Your task to perform on an android device: Open notification settings Image 0: 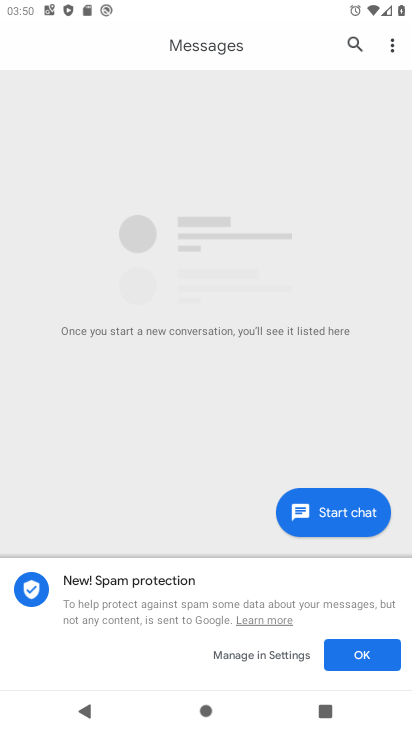
Step 0: press home button
Your task to perform on an android device: Open notification settings Image 1: 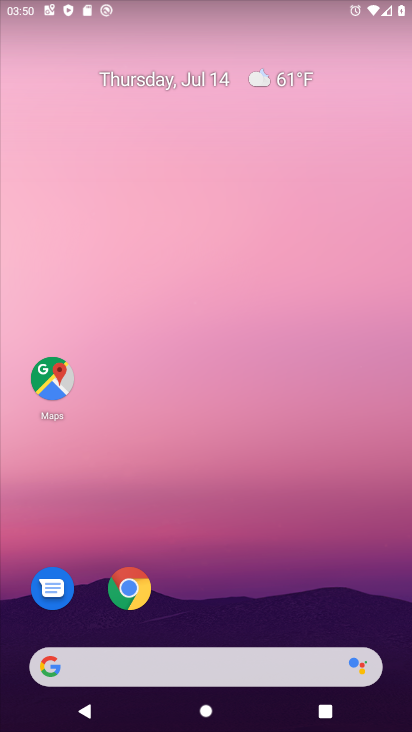
Step 1: drag from (224, 534) to (167, 77)
Your task to perform on an android device: Open notification settings Image 2: 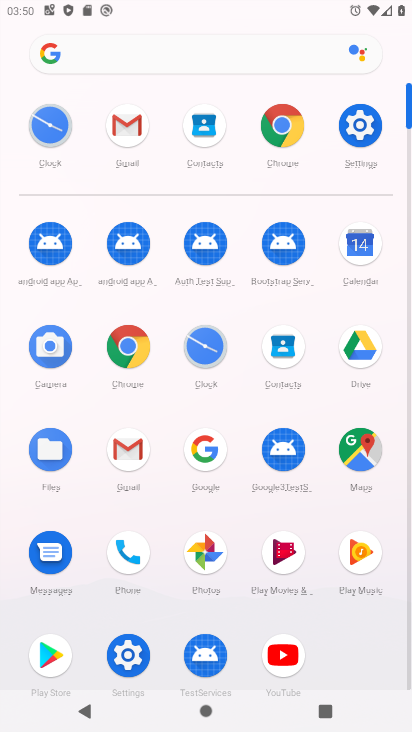
Step 2: click (360, 128)
Your task to perform on an android device: Open notification settings Image 3: 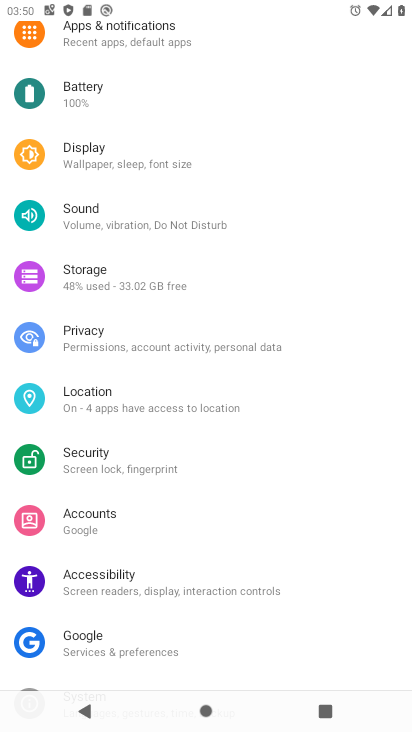
Step 3: click (110, 42)
Your task to perform on an android device: Open notification settings Image 4: 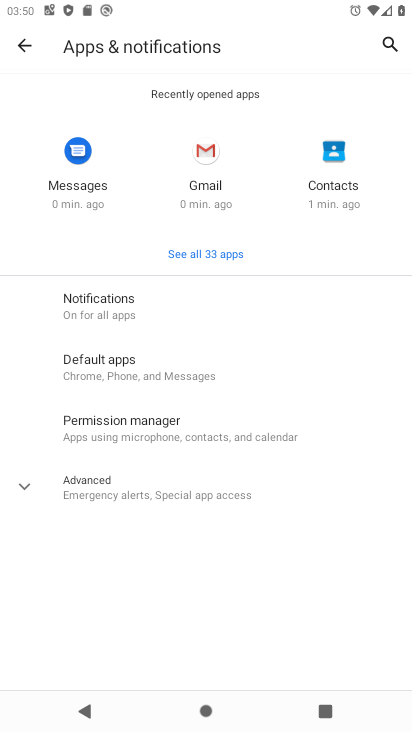
Step 4: click (64, 306)
Your task to perform on an android device: Open notification settings Image 5: 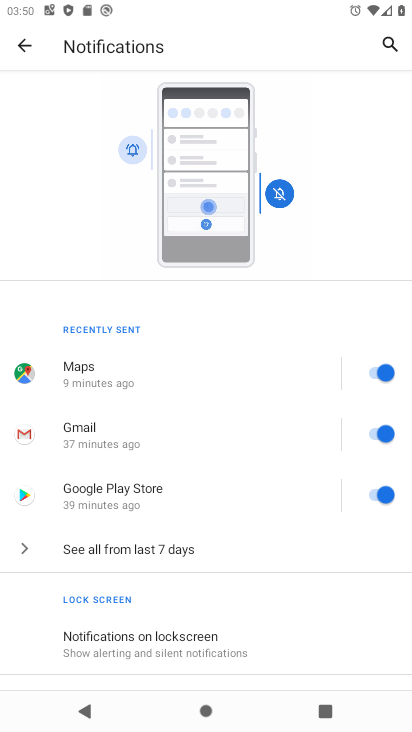
Step 5: task complete